Your task to perform on an android device: Check the news Image 0: 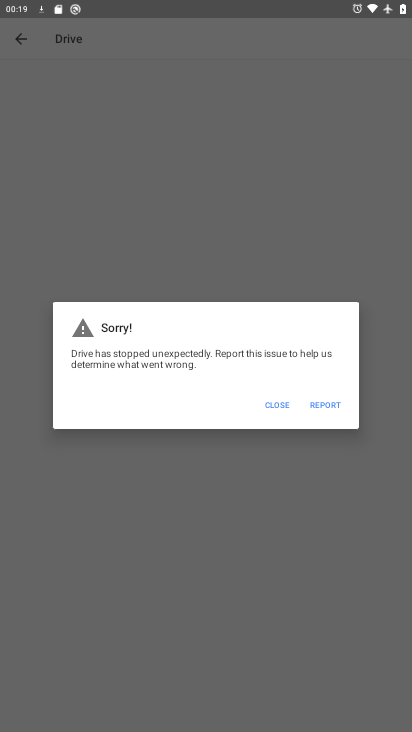
Step 0: press home button
Your task to perform on an android device: Check the news Image 1: 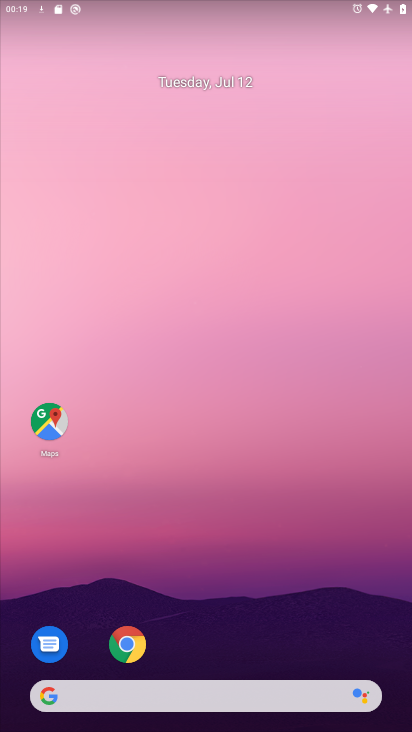
Step 1: click (128, 626)
Your task to perform on an android device: Check the news Image 2: 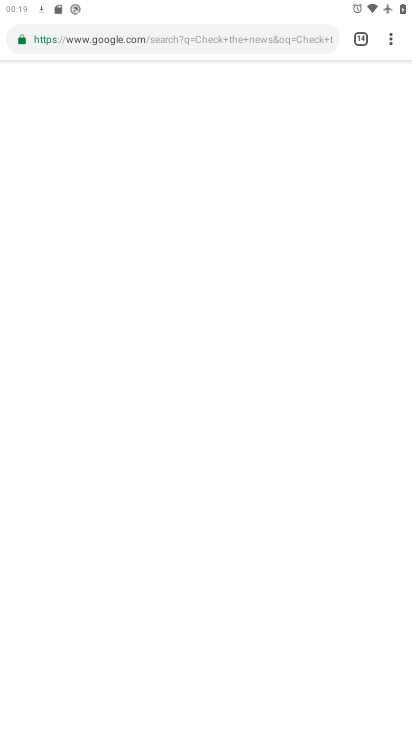
Step 2: click (399, 29)
Your task to perform on an android device: Check the news Image 3: 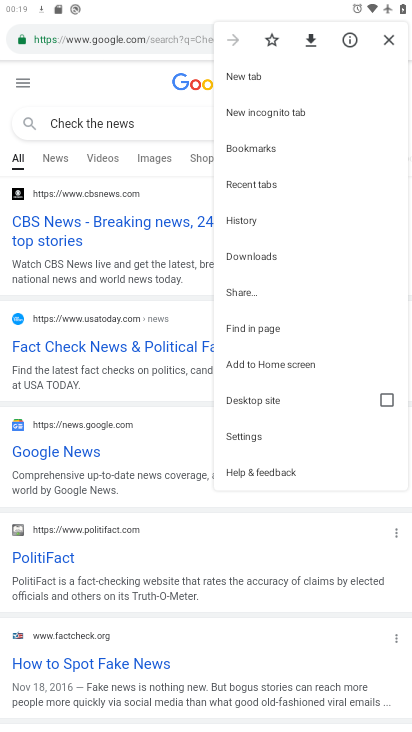
Step 3: click (259, 83)
Your task to perform on an android device: Check the news Image 4: 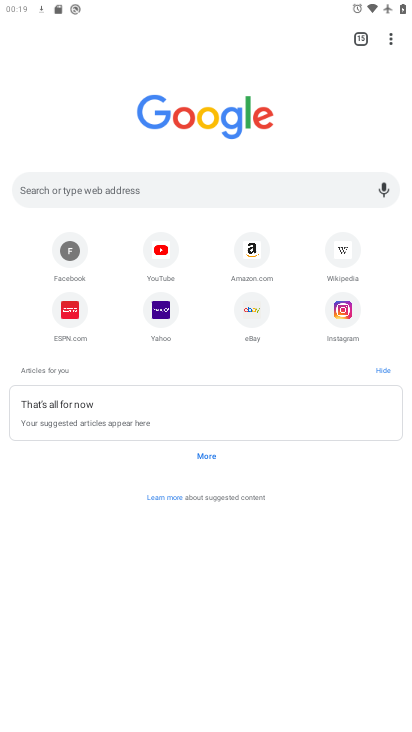
Step 4: click (184, 193)
Your task to perform on an android device: Check the news Image 5: 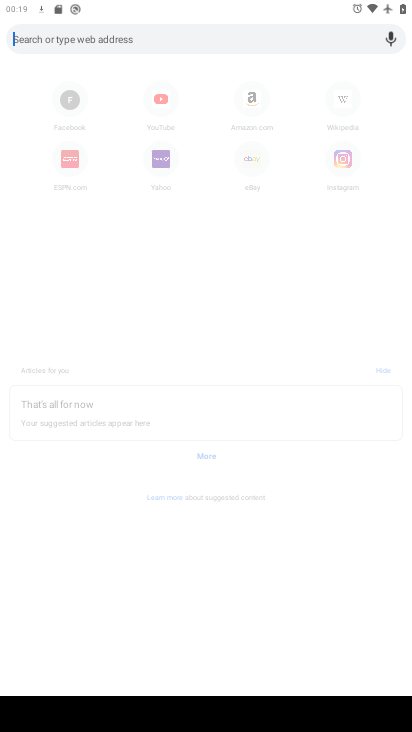
Step 5: type "Check the news "
Your task to perform on an android device: Check the news Image 6: 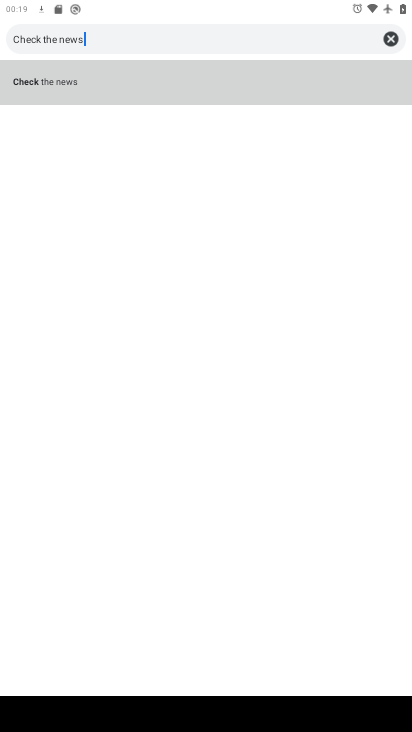
Step 6: click (92, 87)
Your task to perform on an android device: Check the news Image 7: 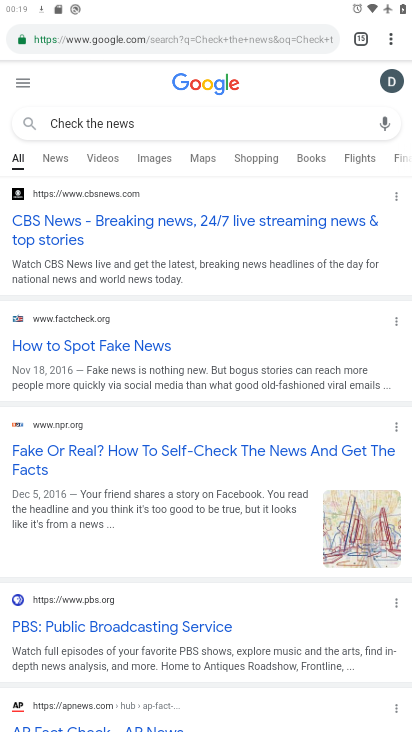
Step 7: task complete